Your task to perform on an android device: star an email in the gmail app Image 0: 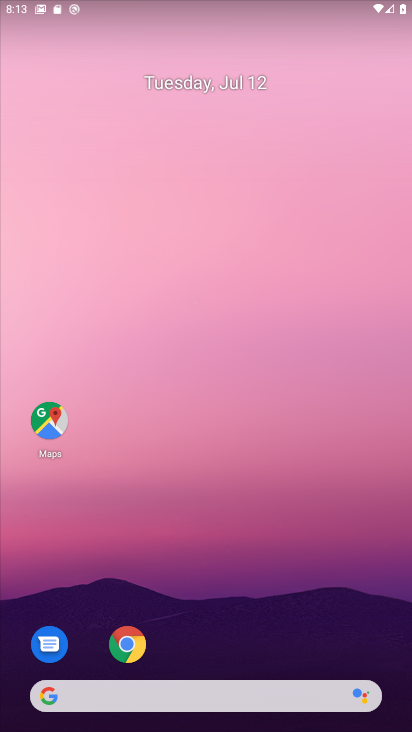
Step 0: drag from (234, 620) to (295, 67)
Your task to perform on an android device: star an email in the gmail app Image 1: 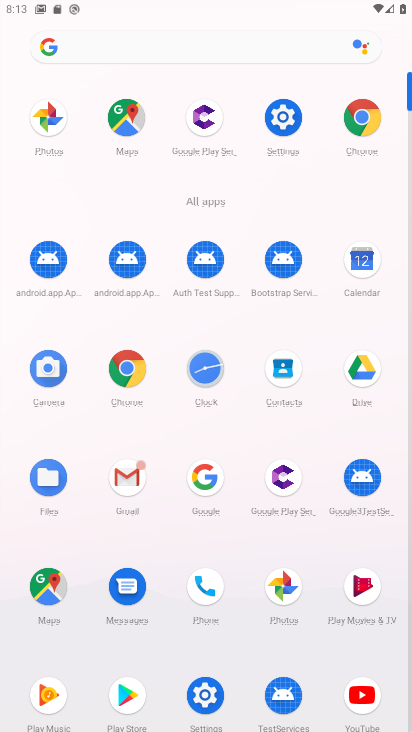
Step 1: click (114, 479)
Your task to perform on an android device: star an email in the gmail app Image 2: 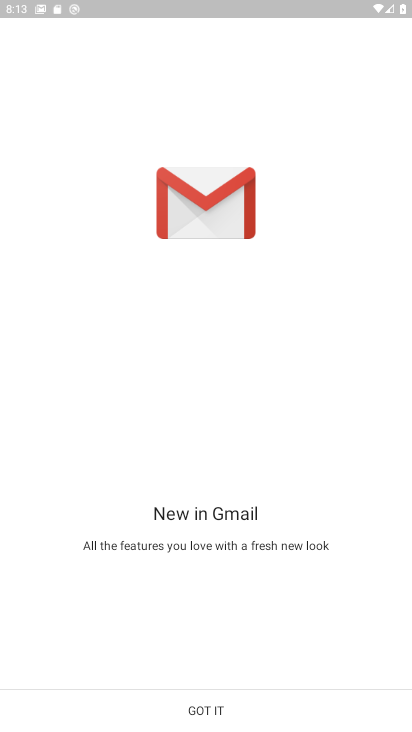
Step 2: click (204, 720)
Your task to perform on an android device: star an email in the gmail app Image 3: 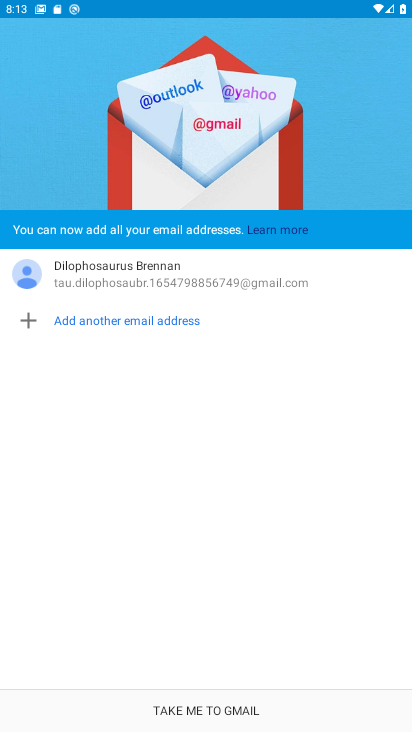
Step 3: click (204, 720)
Your task to perform on an android device: star an email in the gmail app Image 4: 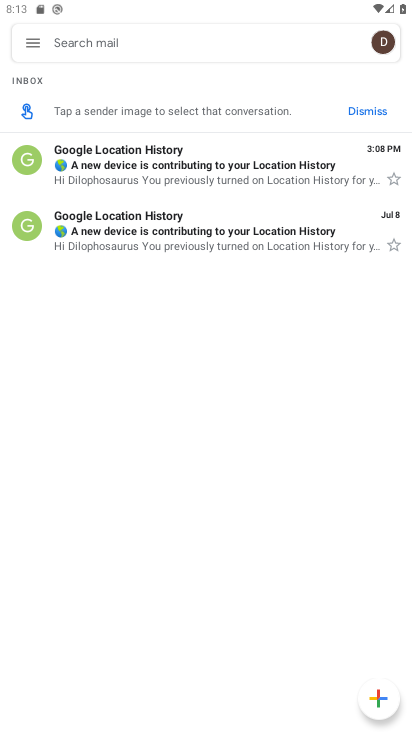
Step 4: click (395, 181)
Your task to perform on an android device: star an email in the gmail app Image 5: 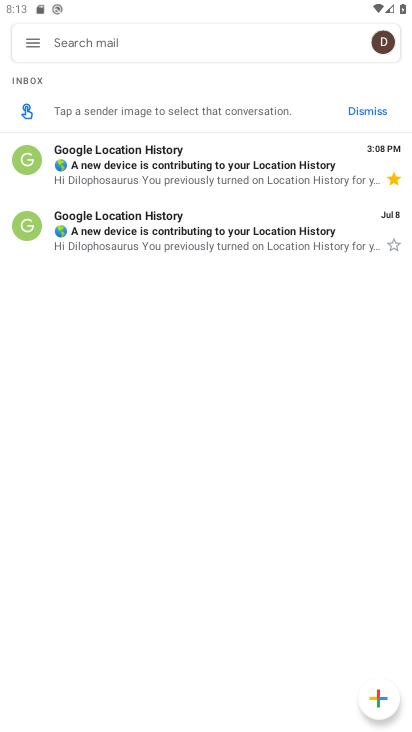
Step 5: task complete